Your task to perform on an android device: What's the weather like in London? Image 0: 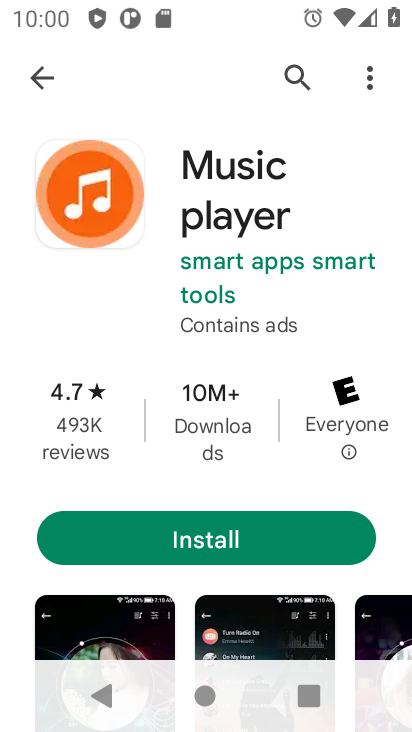
Step 0: press home button
Your task to perform on an android device: What's the weather like in London? Image 1: 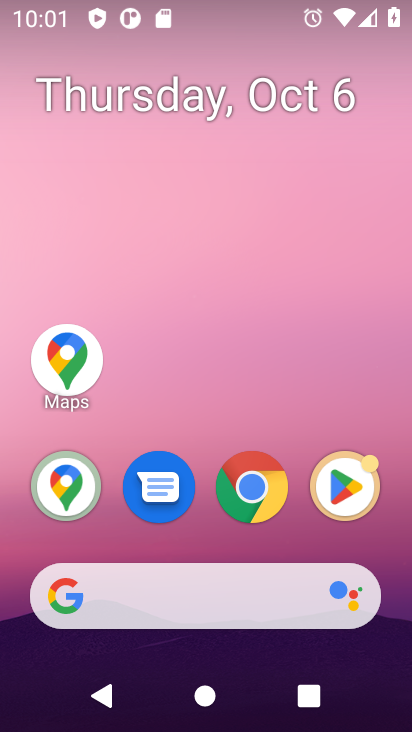
Step 1: drag from (282, 609) to (306, 106)
Your task to perform on an android device: What's the weather like in London? Image 2: 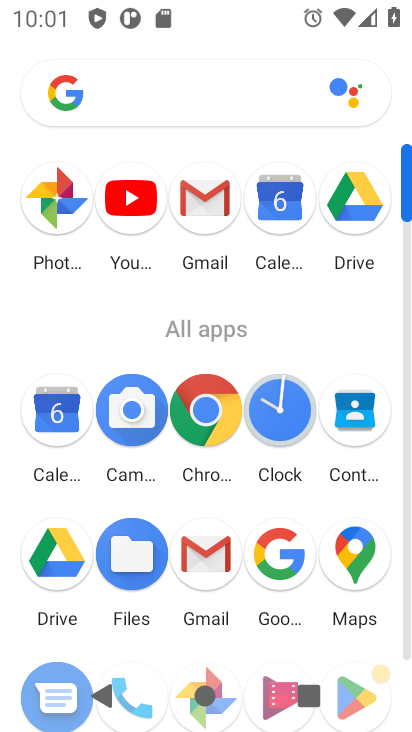
Step 2: click (225, 397)
Your task to perform on an android device: What's the weather like in London? Image 3: 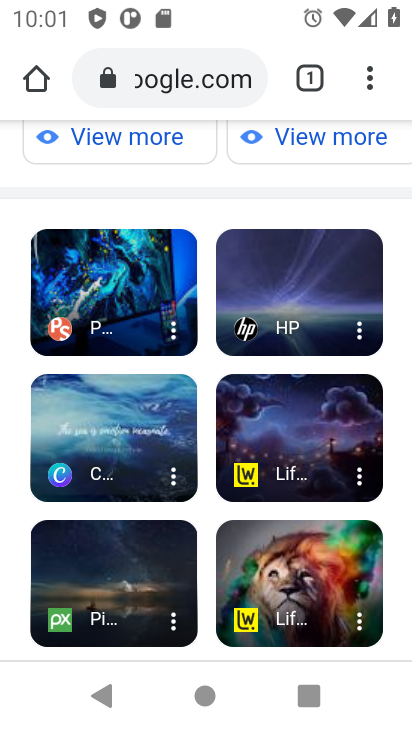
Step 3: click (200, 71)
Your task to perform on an android device: What's the weather like in London? Image 4: 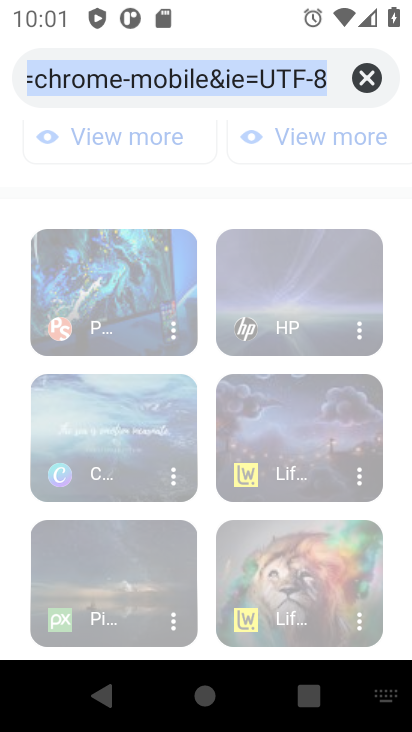
Step 4: click (365, 70)
Your task to perform on an android device: What's the weather like in London? Image 5: 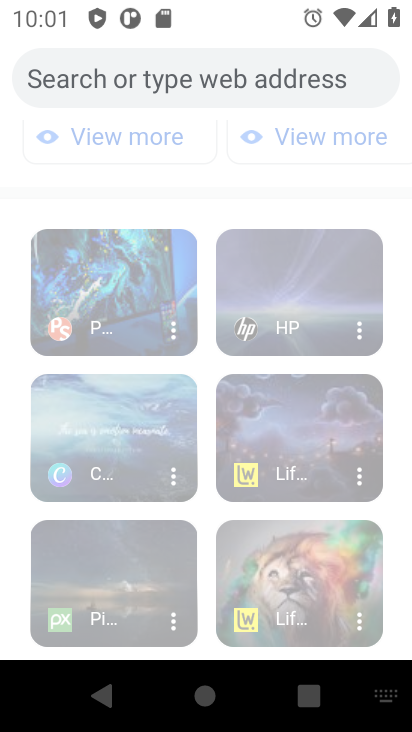
Step 5: type "Show me some nice wallpapers for my computer"
Your task to perform on an android device: What's the weather like in London? Image 6: 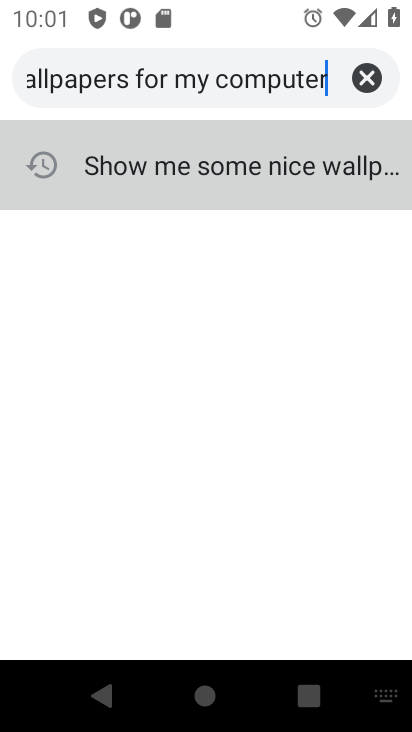
Step 6: press enter
Your task to perform on an android device: What's the weather like in London? Image 7: 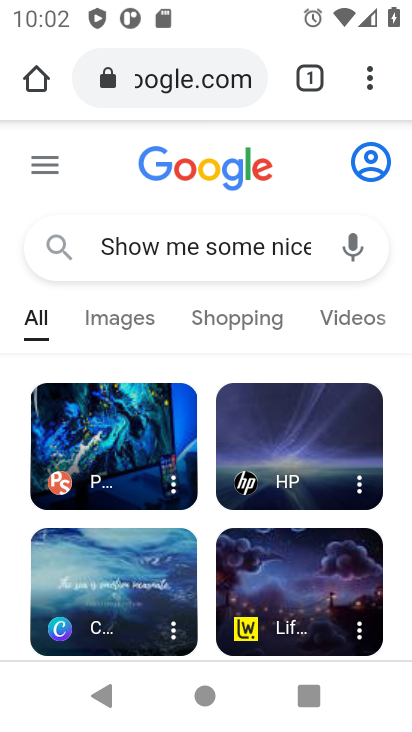
Step 7: click (215, 83)
Your task to perform on an android device: What's the weather like in London? Image 8: 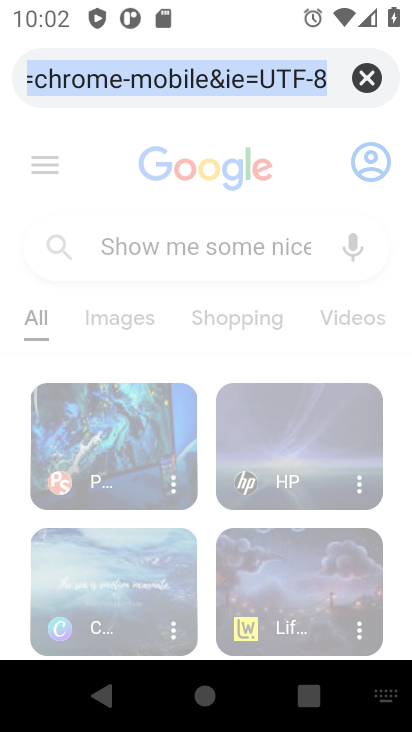
Step 8: click (371, 77)
Your task to perform on an android device: What's the weather like in London? Image 9: 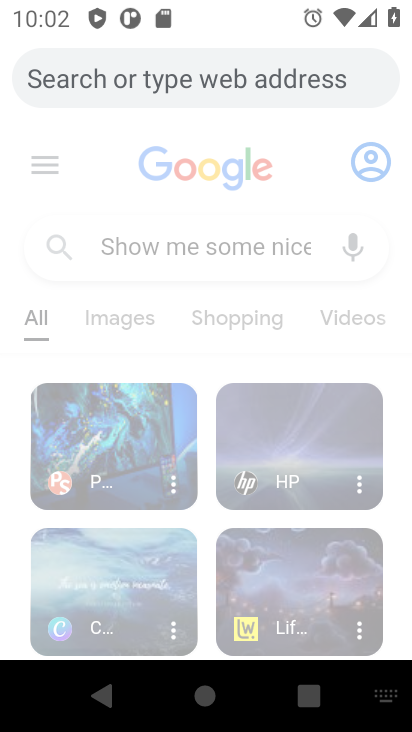
Step 9: click (249, 79)
Your task to perform on an android device: What's the weather like in London? Image 10: 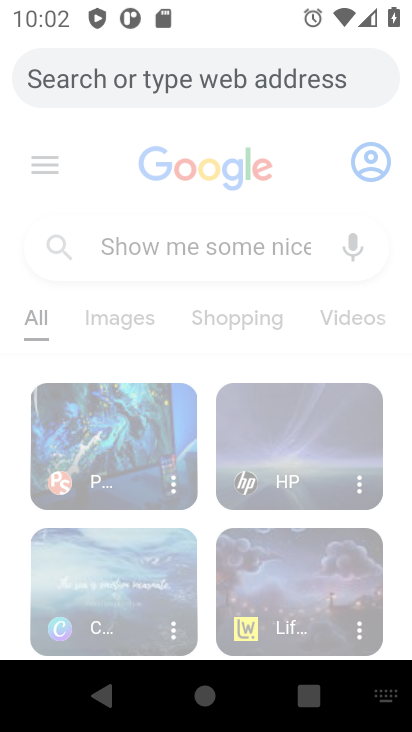
Step 10: type "What's the weather like in London?"
Your task to perform on an android device: What's the weather like in London? Image 11: 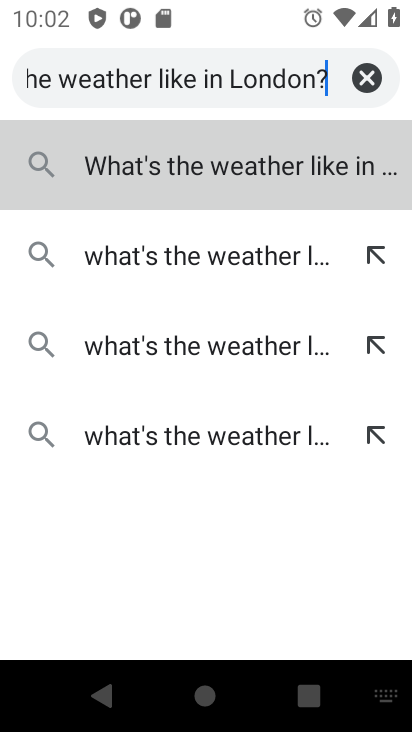
Step 11: press enter
Your task to perform on an android device: What's the weather like in London? Image 12: 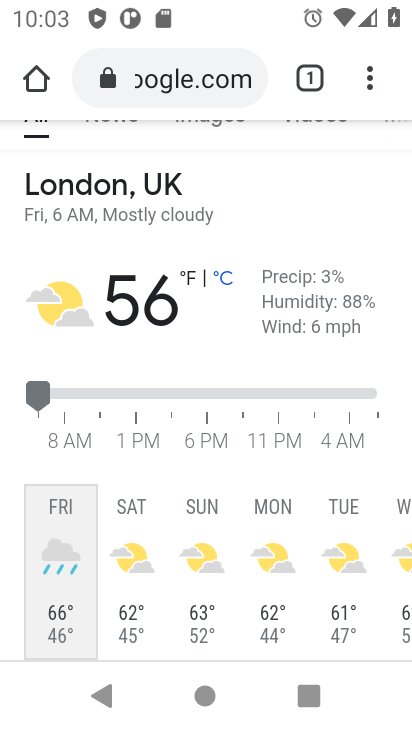
Step 12: task complete